Your task to perform on an android device: install app "Upside-Cash back on gas & food" Image 0: 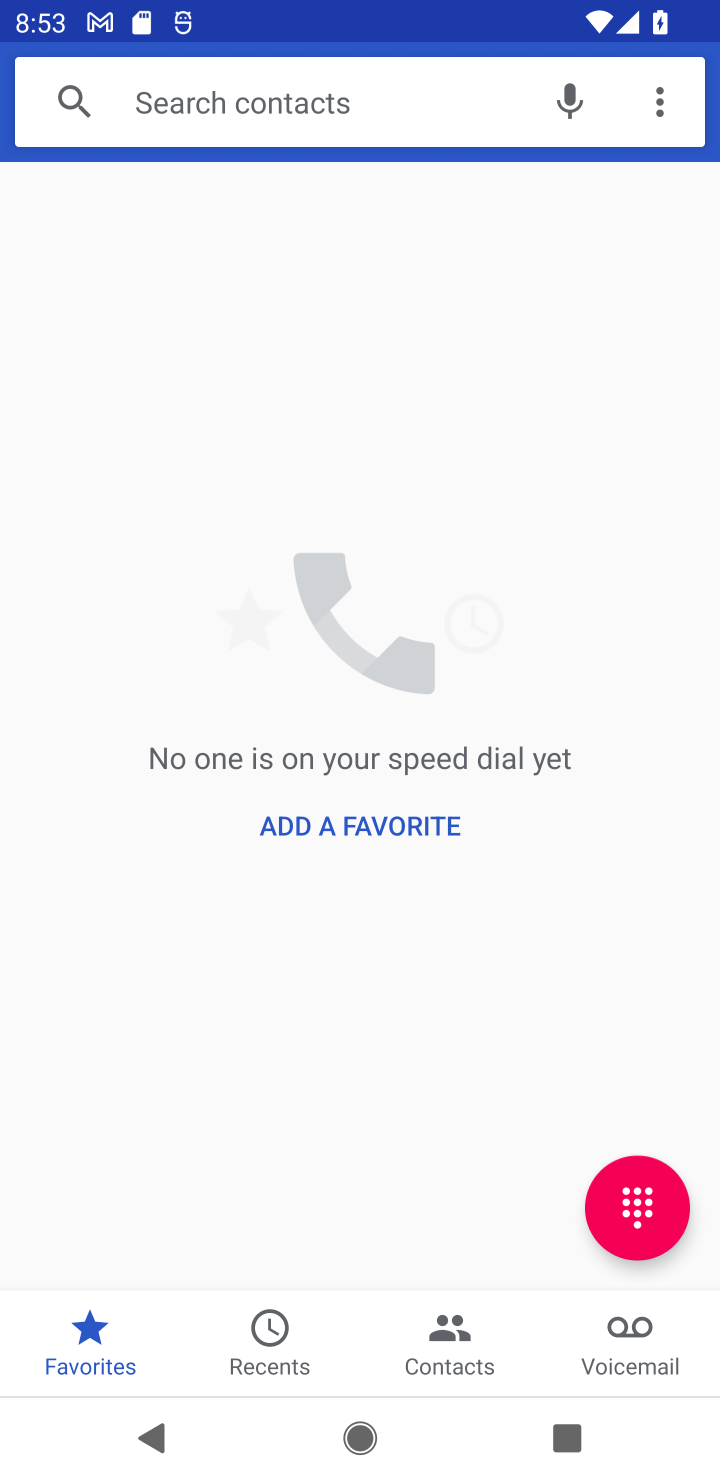
Step 0: press back button
Your task to perform on an android device: install app "Upside-Cash back on gas & food" Image 1: 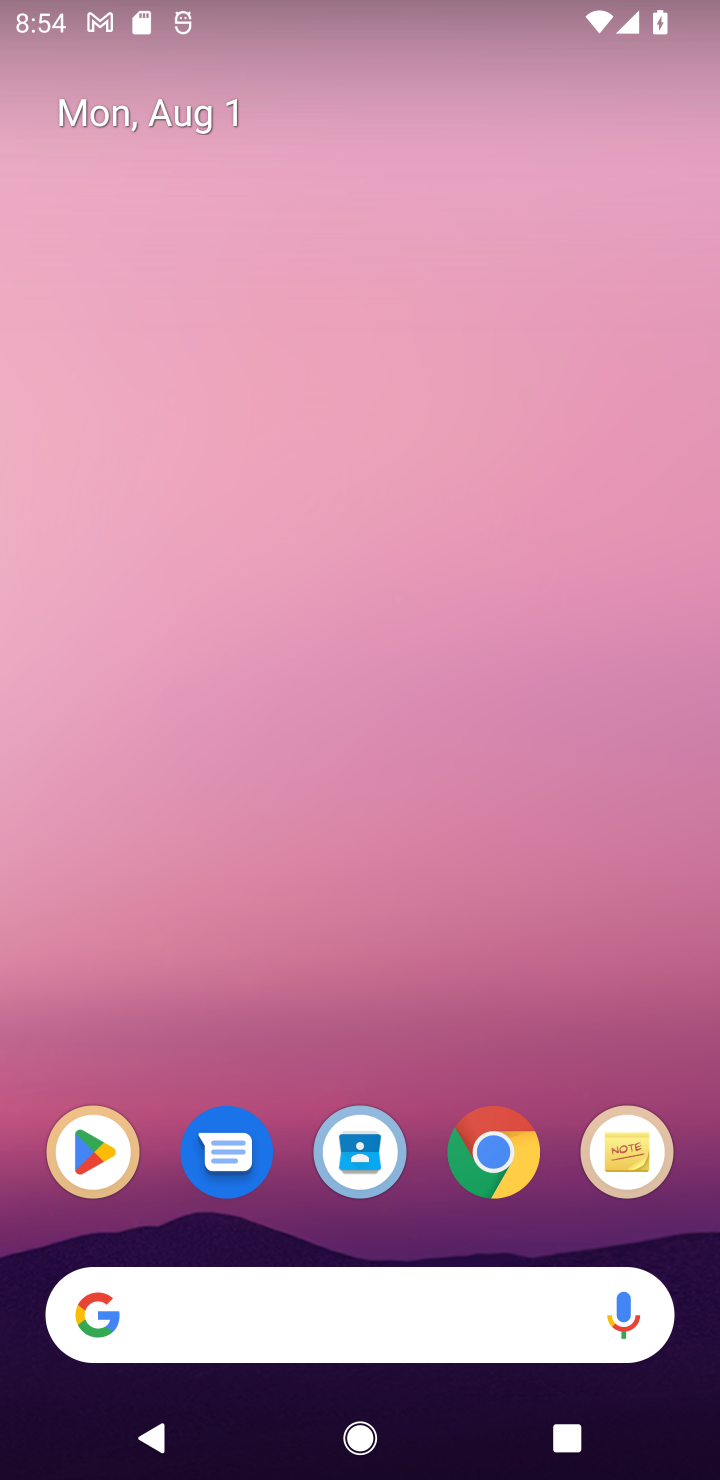
Step 1: drag from (282, 677) to (269, 18)
Your task to perform on an android device: install app "Upside-Cash back on gas & food" Image 2: 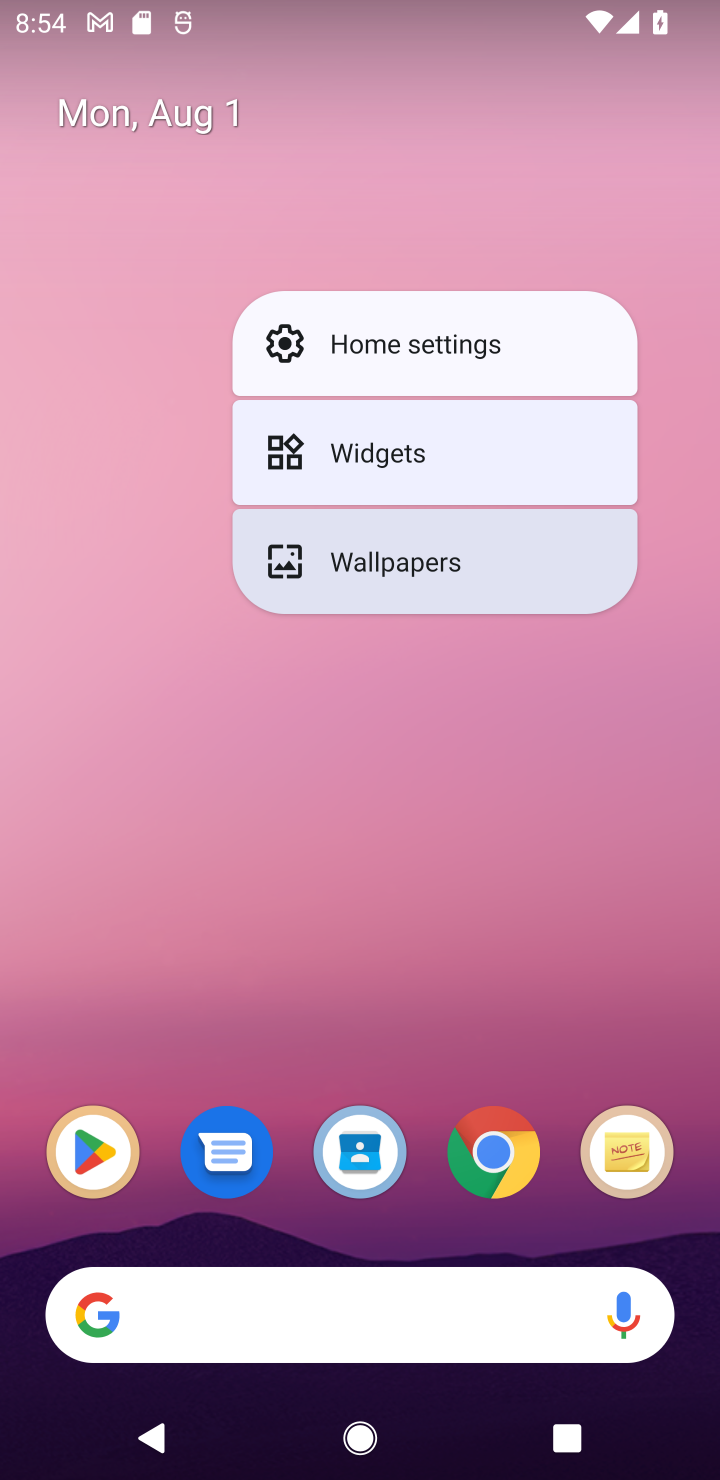
Step 2: click (293, 945)
Your task to perform on an android device: install app "Upside-Cash back on gas & food" Image 3: 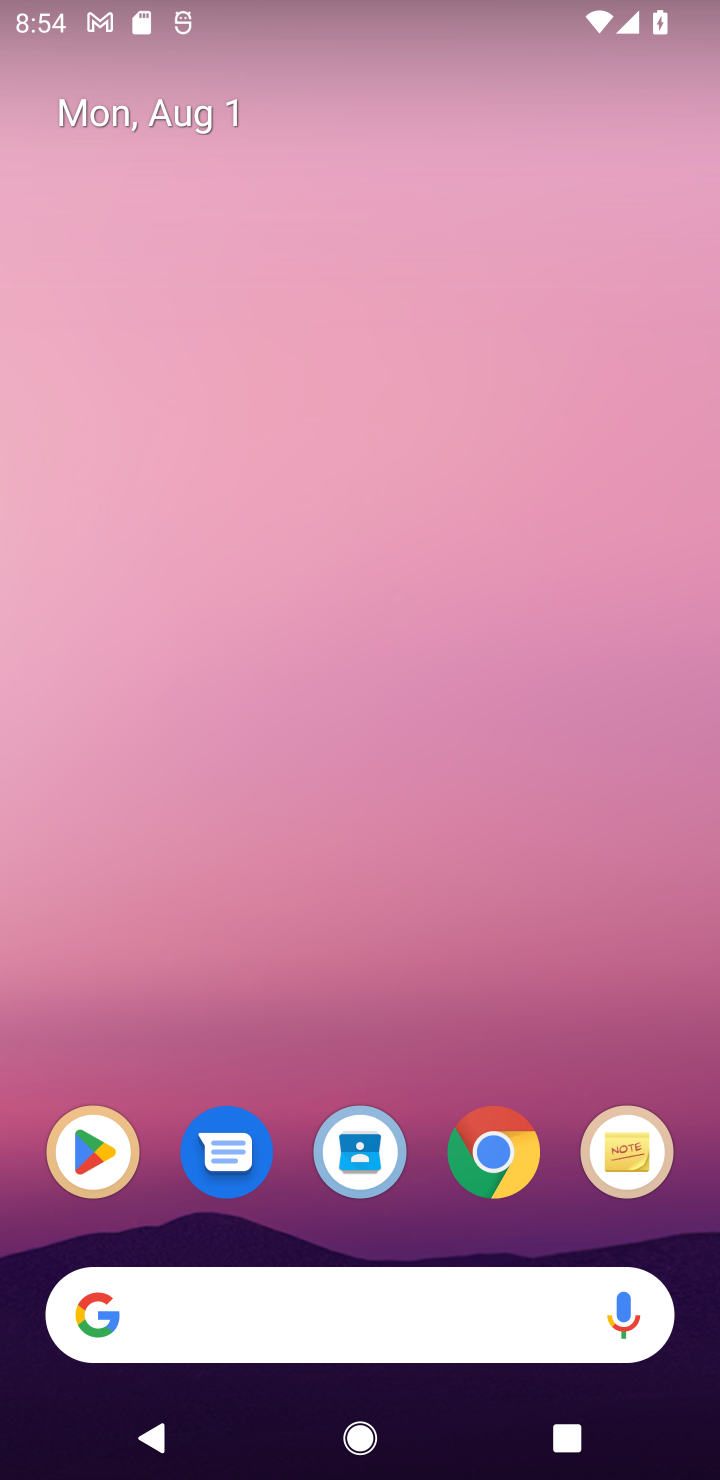
Step 3: click (319, 914)
Your task to perform on an android device: install app "Upside-Cash back on gas & food" Image 4: 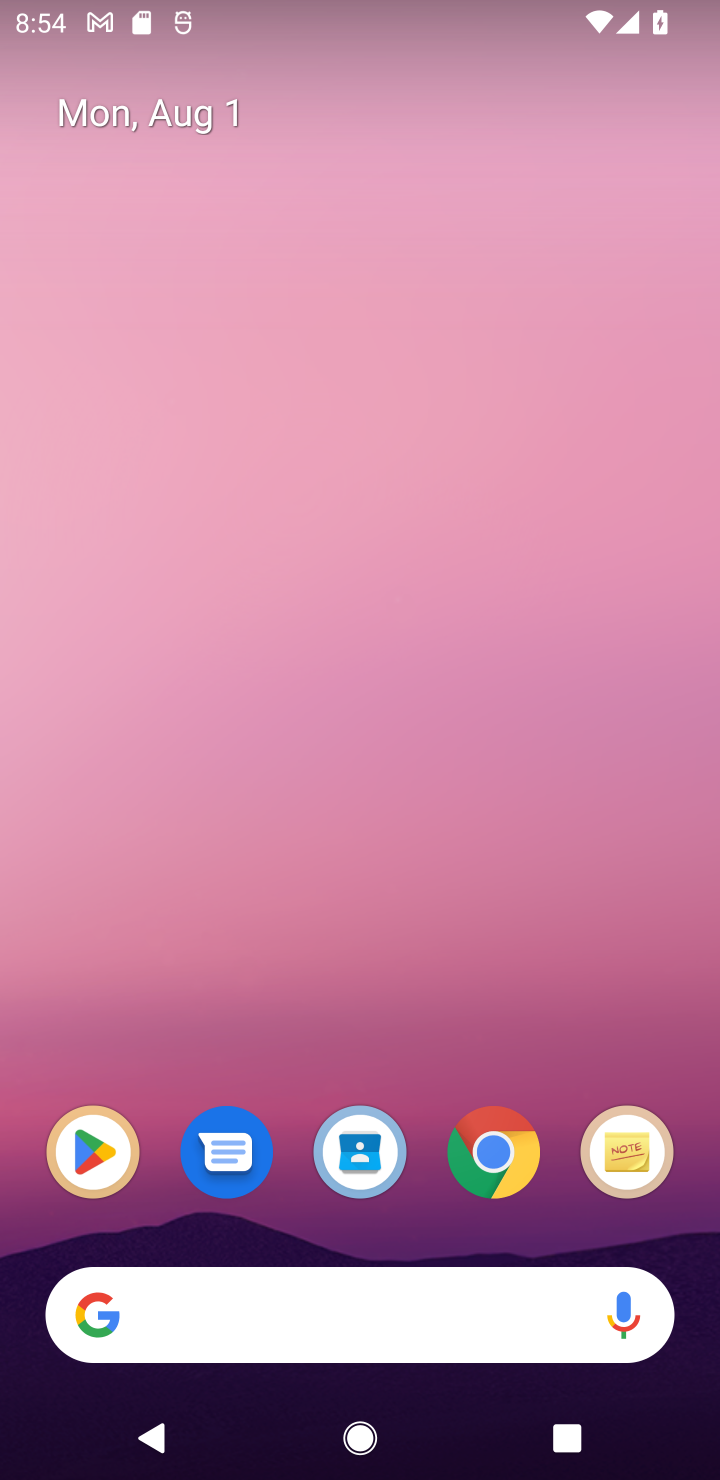
Step 4: drag from (356, 1257) to (326, 166)
Your task to perform on an android device: install app "Upside-Cash back on gas & food" Image 5: 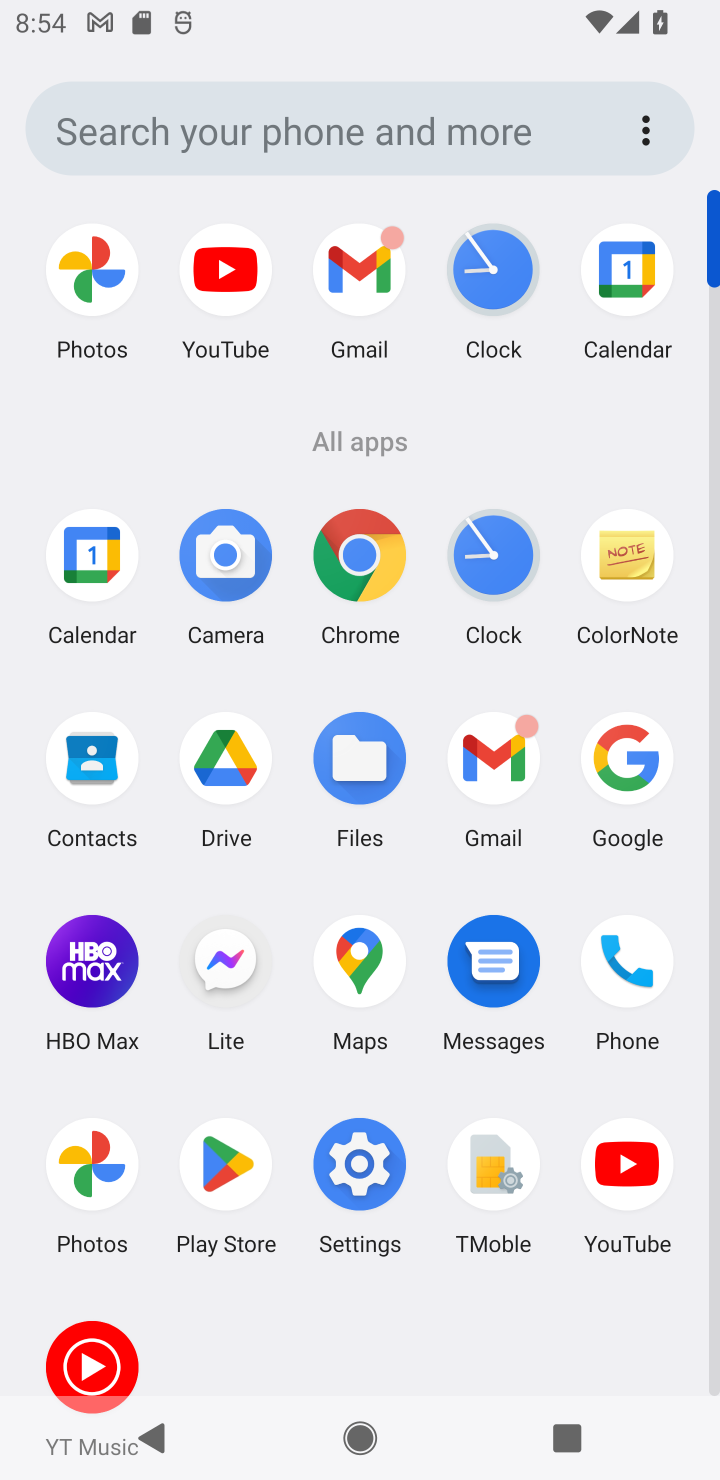
Step 5: click (225, 1193)
Your task to perform on an android device: install app "Upside-Cash back on gas & food" Image 6: 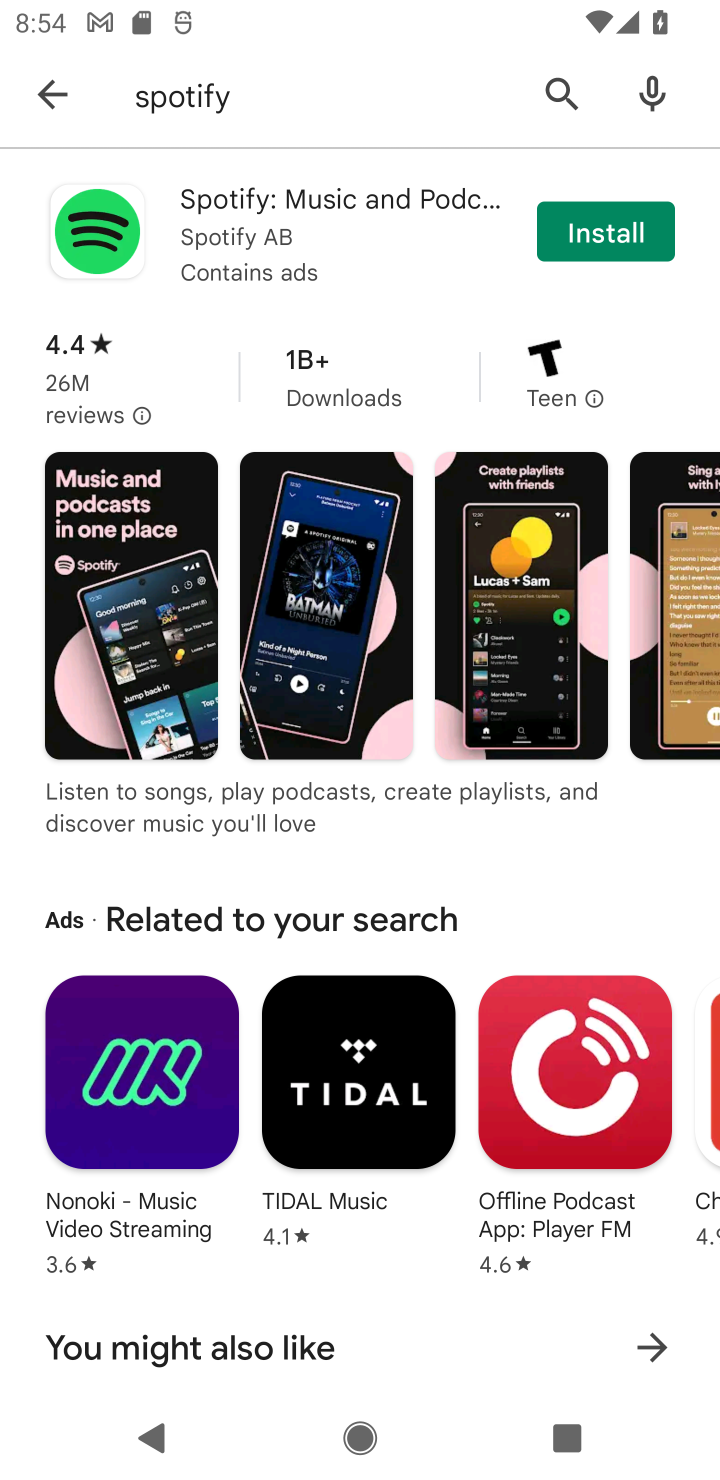
Step 6: click (36, 81)
Your task to perform on an android device: install app "Upside-Cash back on gas & food" Image 7: 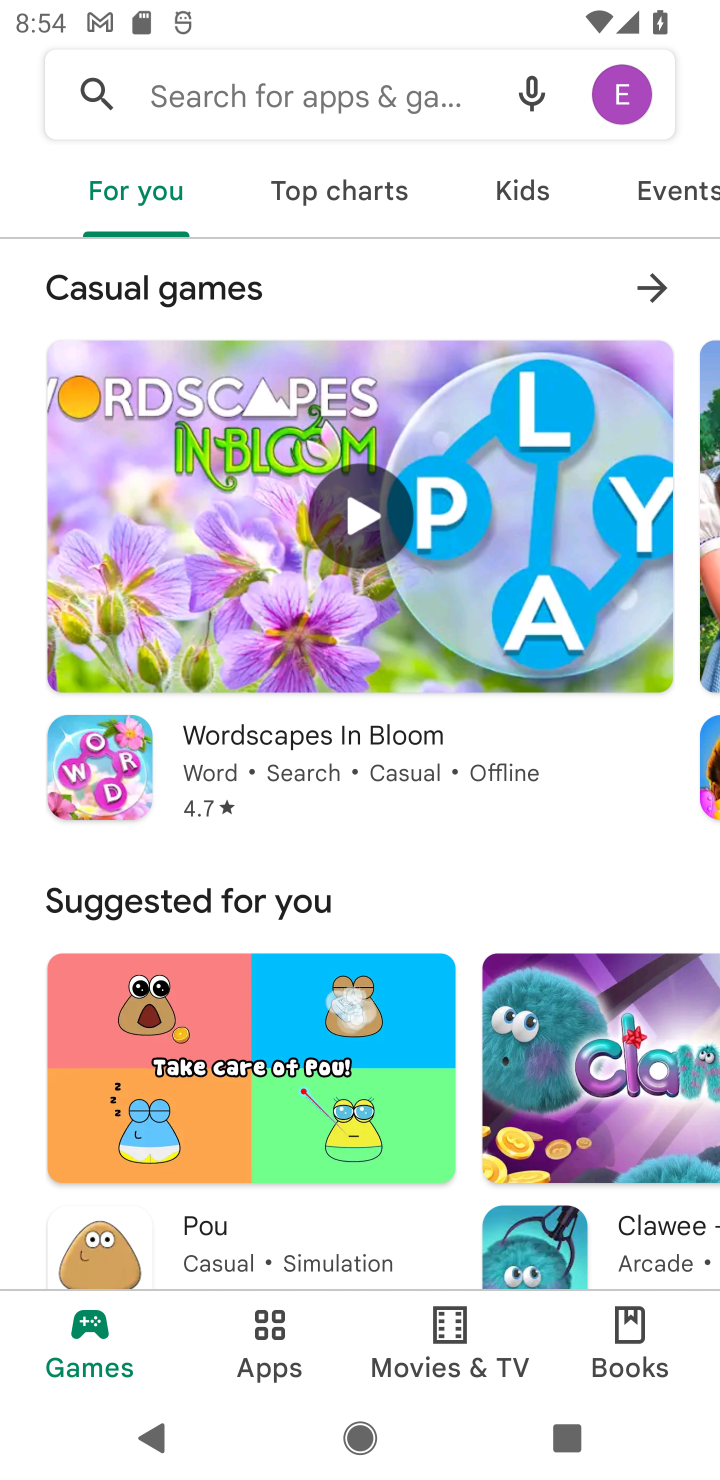
Step 7: click (271, 94)
Your task to perform on an android device: install app "Upside-Cash back on gas & food" Image 8: 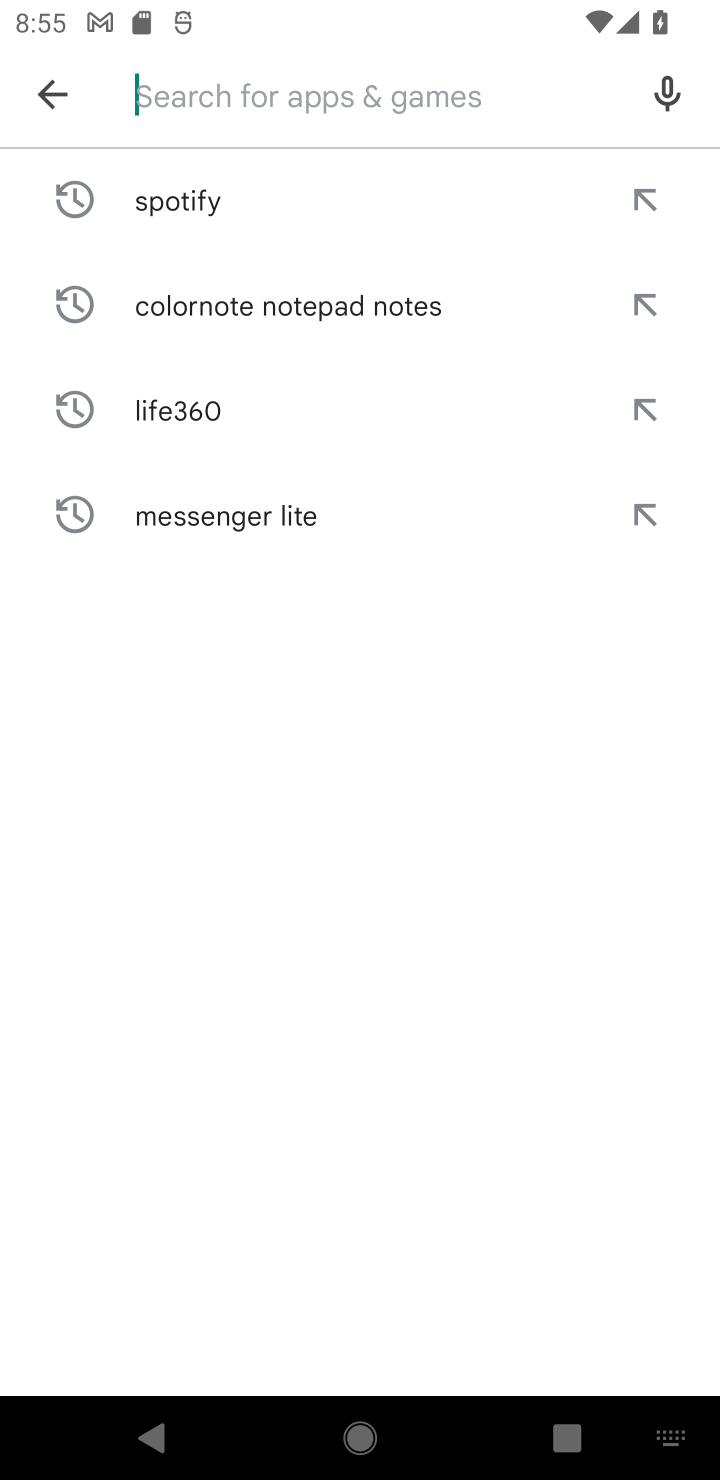
Step 8: type "Upside-Cash back on gas & foo"
Your task to perform on an android device: install app "Upside-Cash back on gas & food" Image 9: 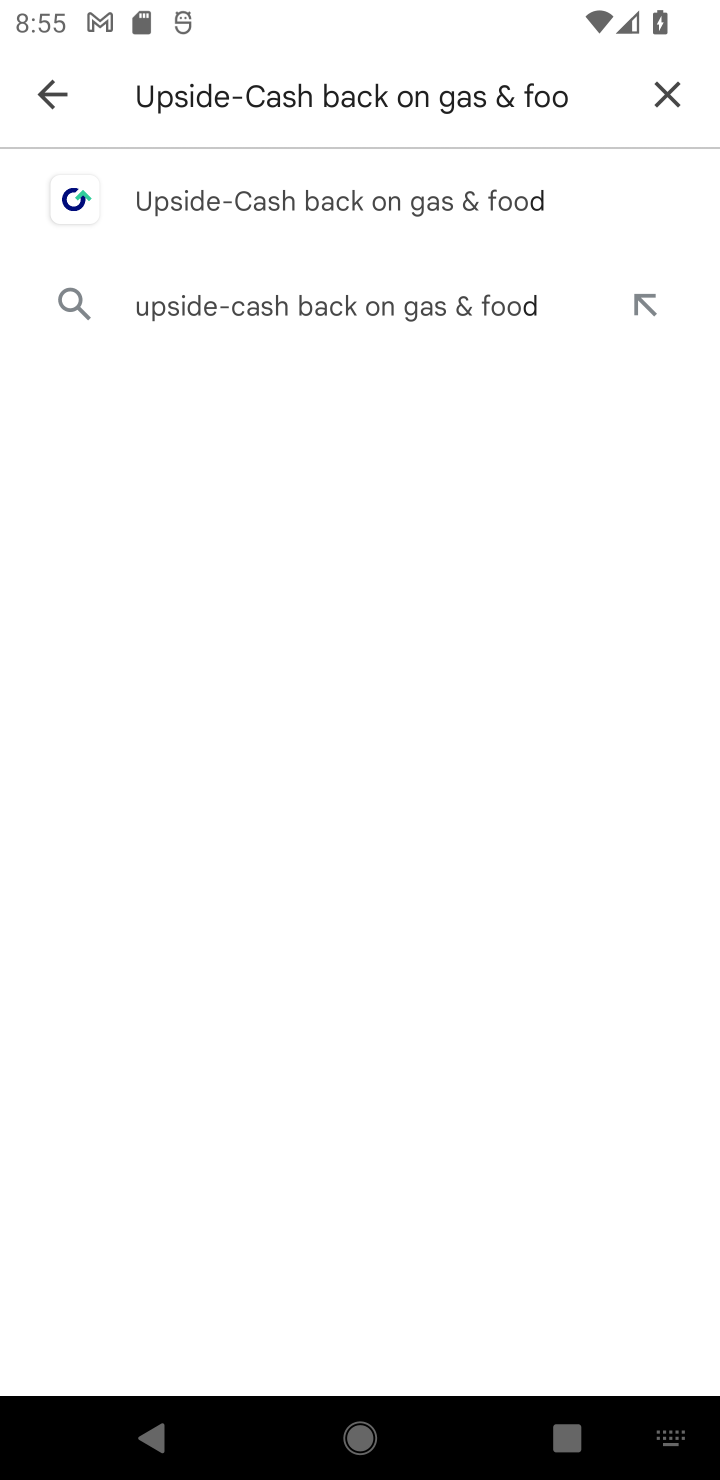
Step 9: click (208, 204)
Your task to perform on an android device: install app "Upside-Cash back on gas & food" Image 10: 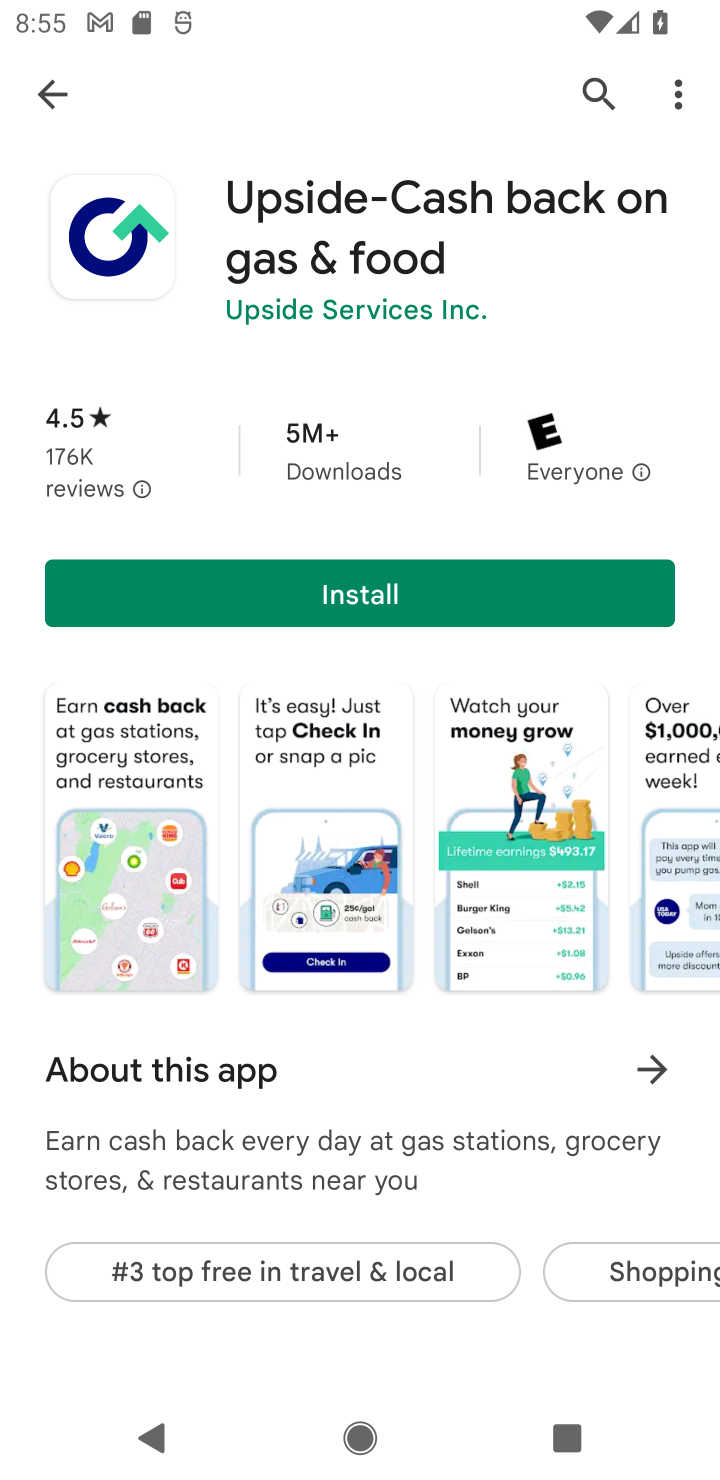
Step 10: click (181, 616)
Your task to perform on an android device: install app "Upside-Cash back on gas & food" Image 11: 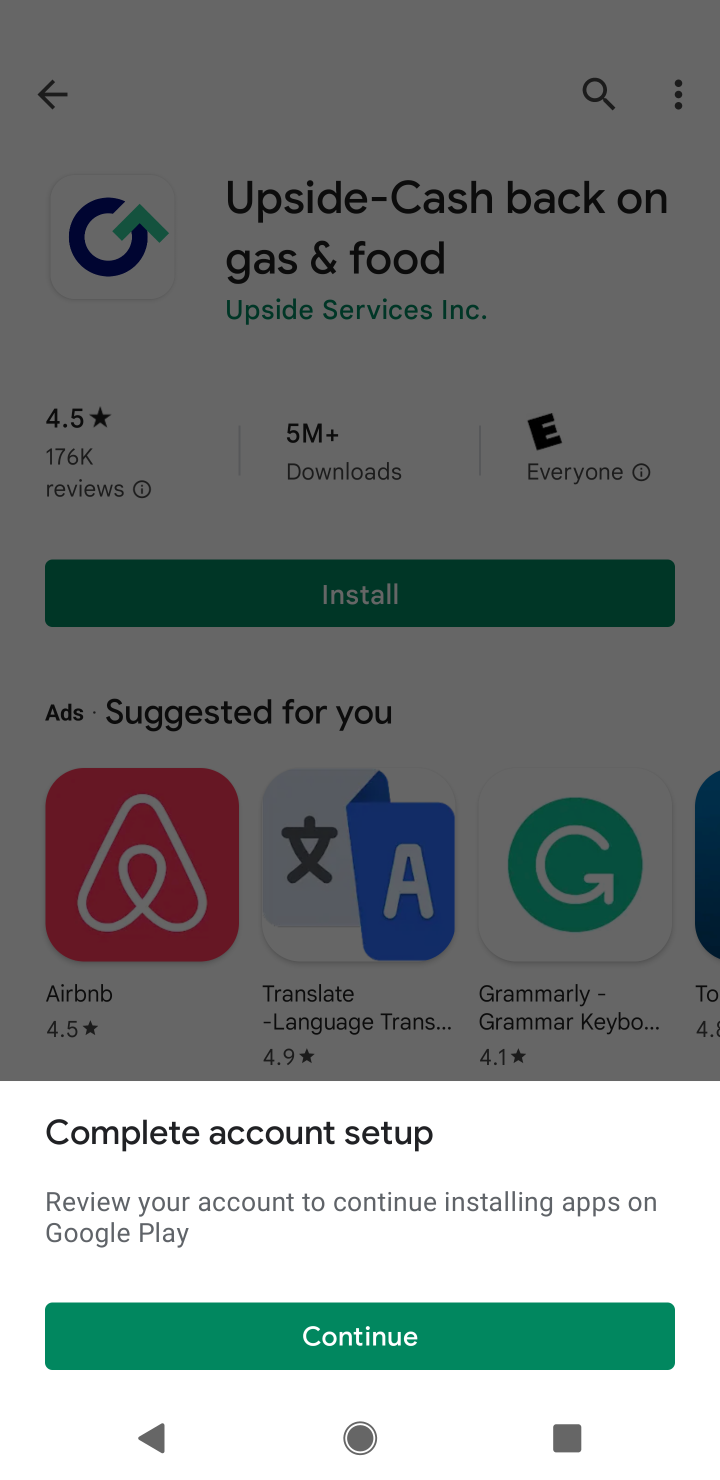
Step 11: click (360, 1314)
Your task to perform on an android device: install app "Upside-Cash back on gas & food" Image 12: 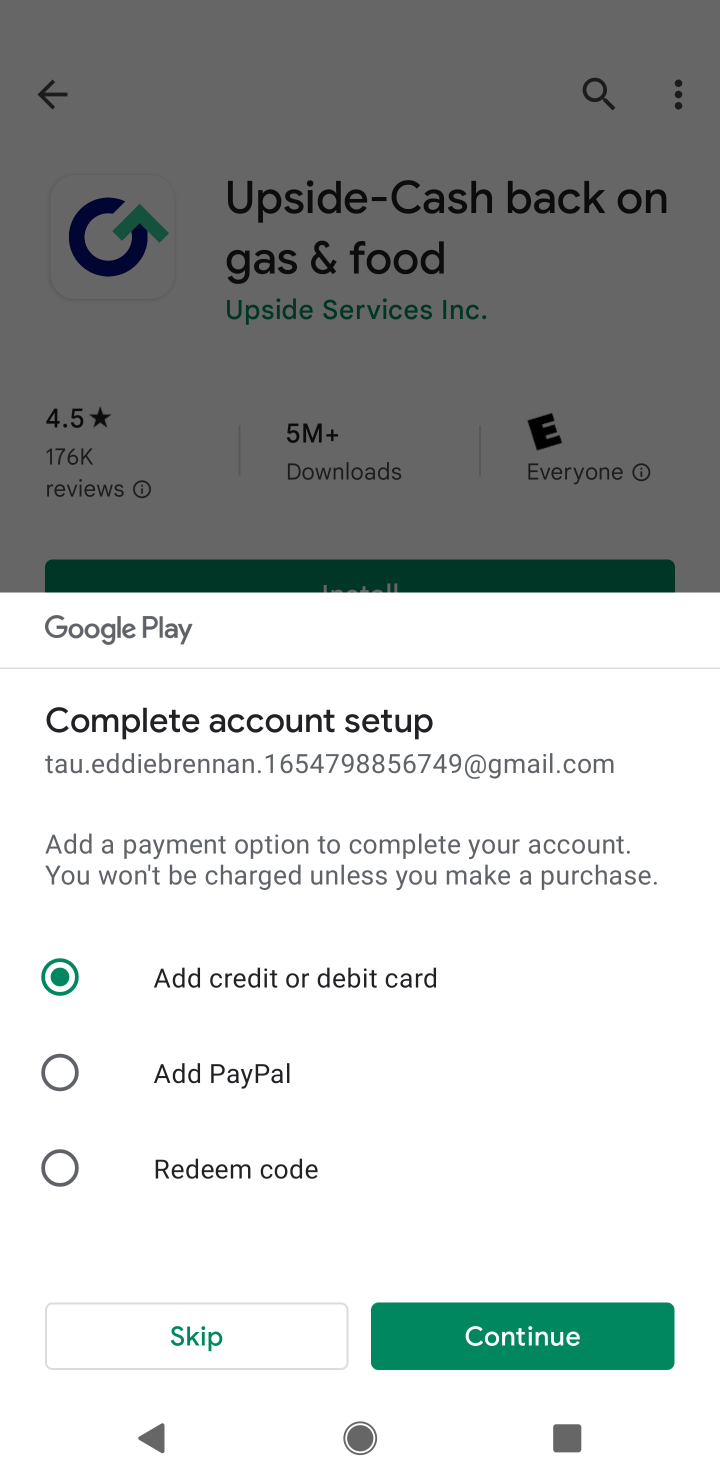
Step 12: click (224, 1312)
Your task to perform on an android device: install app "Upside-Cash back on gas & food" Image 13: 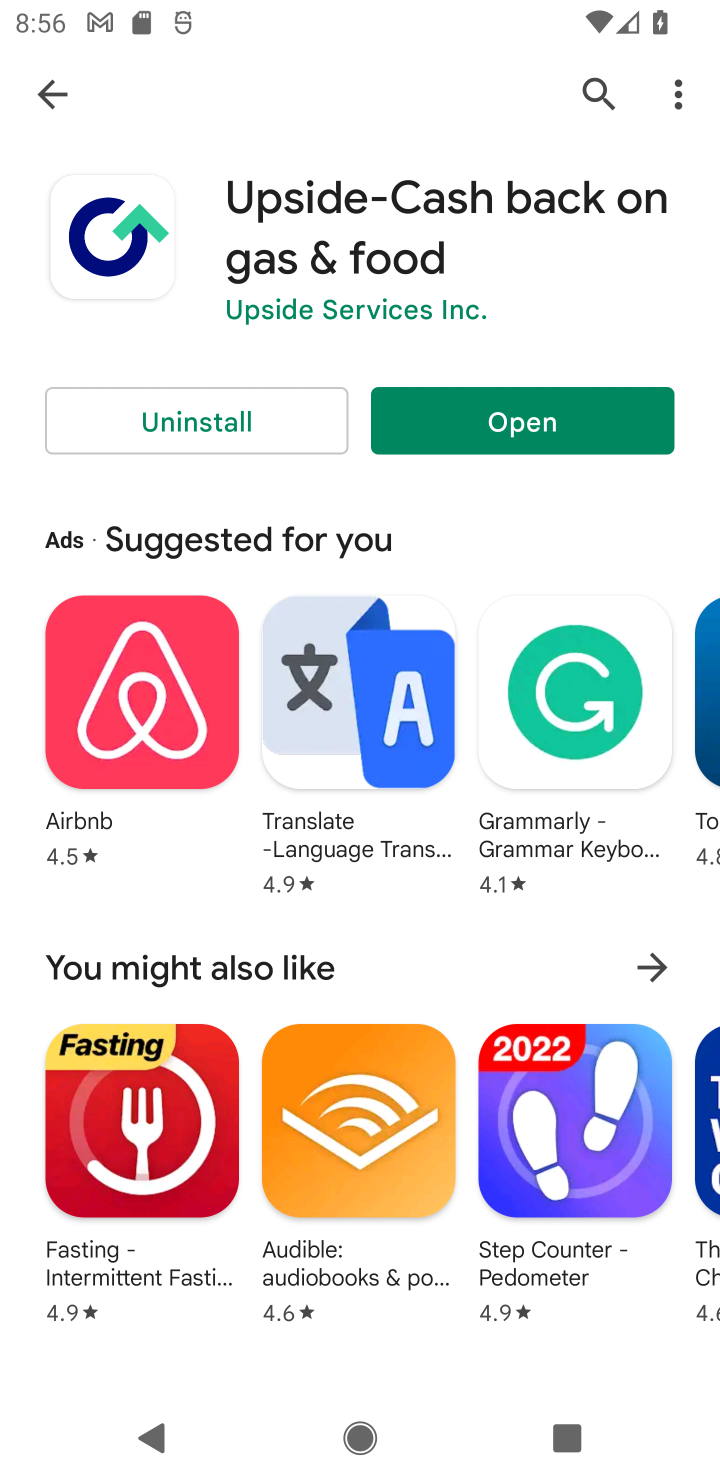
Step 13: task complete